Your task to perform on an android device: open chrome and create a bookmark for the current page Image 0: 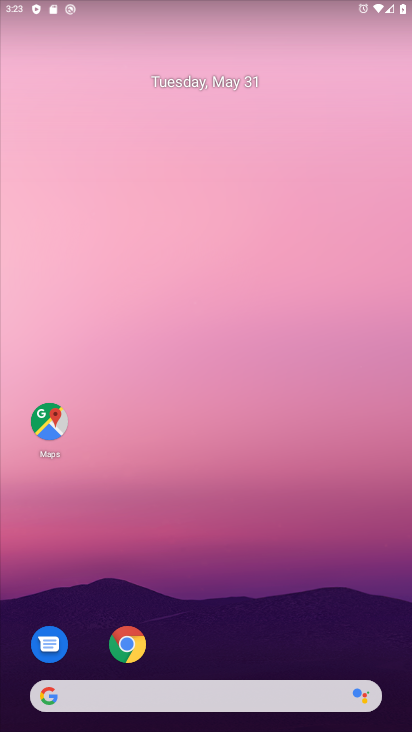
Step 0: click (141, 640)
Your task to perform on an android device: open chrome and create a bookmark for the current page Image 1: 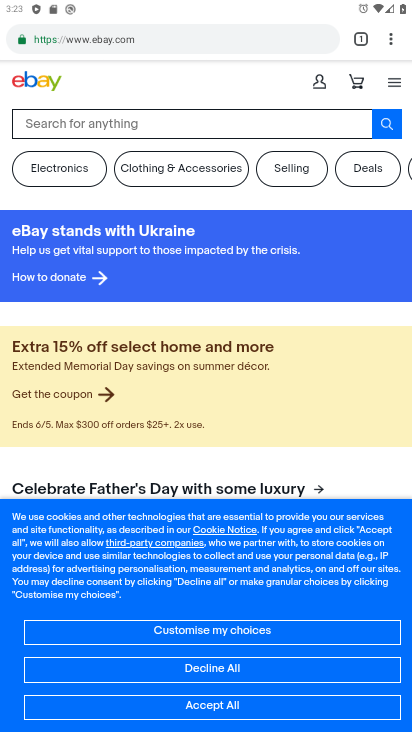
Step 1: click (392, 35)
Your task to perform on an android device: open chrome and create a bookmark for the current page Image 2: 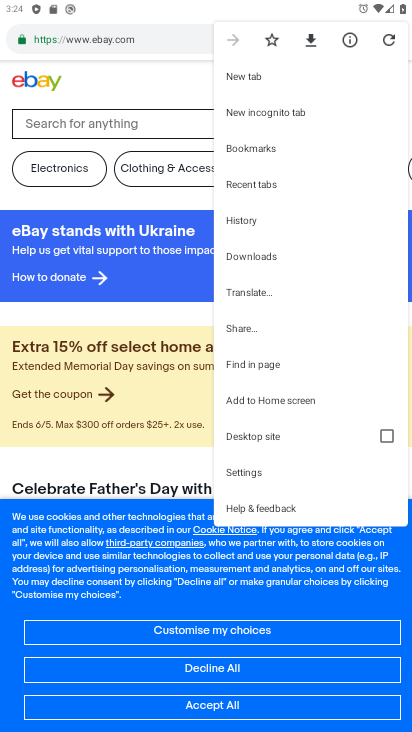
Step 2: click (274, 40)
Your task to perform on an android device: open chrome and create a bookmark for the current page Image 3: 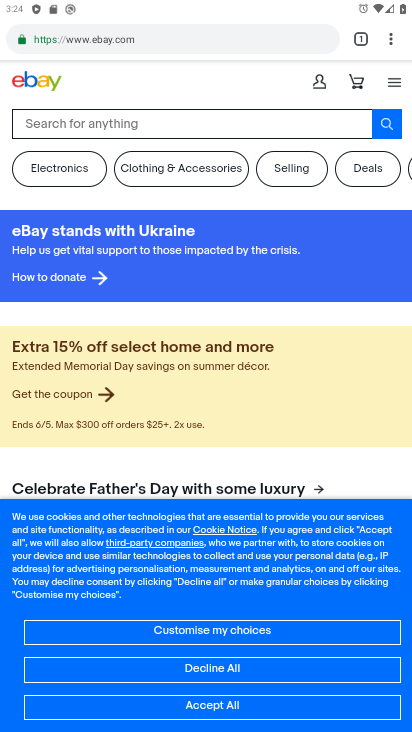
Step 3: task complete